Your task to perform on an android device: turn off translation in the chrome app Image 0: 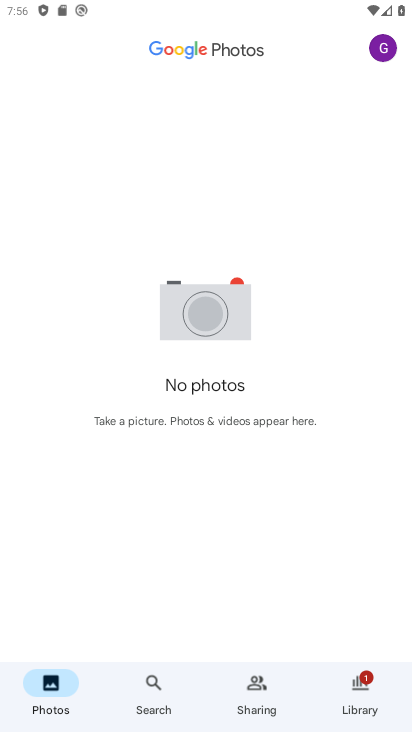
Step 0: press home button
Your task to perform on an android device: turn off translation in the chrome app Image 1: 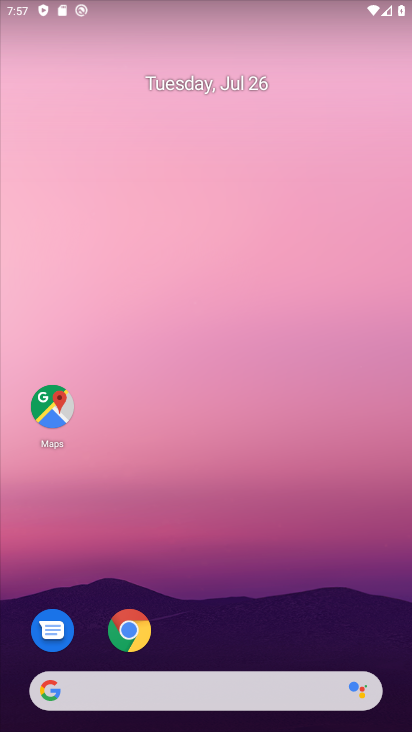
Step 1: click (137, 631)
Your task to perform on an android device: turn off translation in the chrome app Image 2: 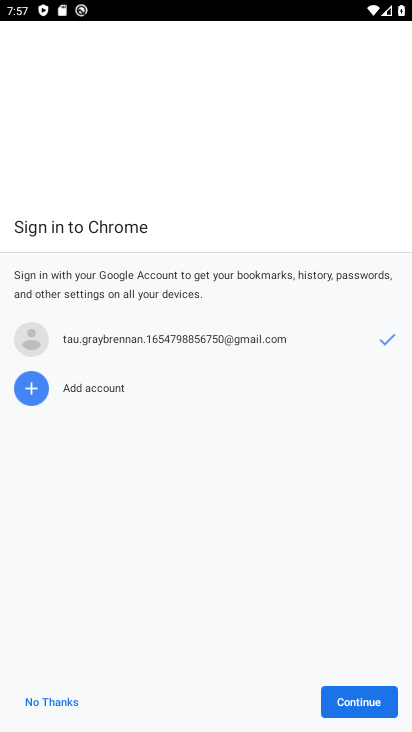
Step 2: click (342, 697)
Your task to perform on an android device: turn off translation in the chrome app Image 3: 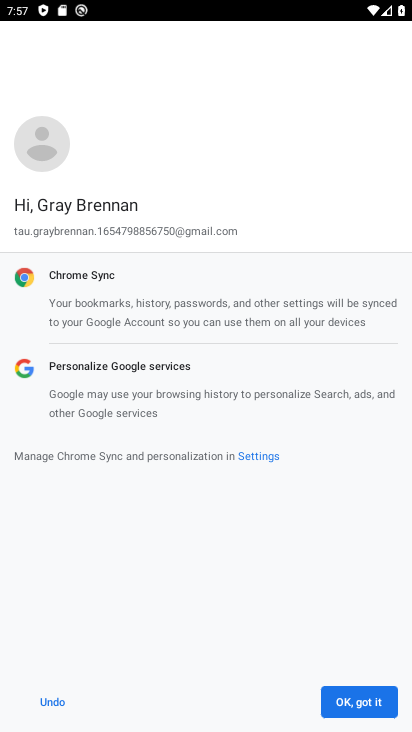
Step 3: click (342, 697)
Your task to perform on an android device: turn off translation in the chrome app Image 4: 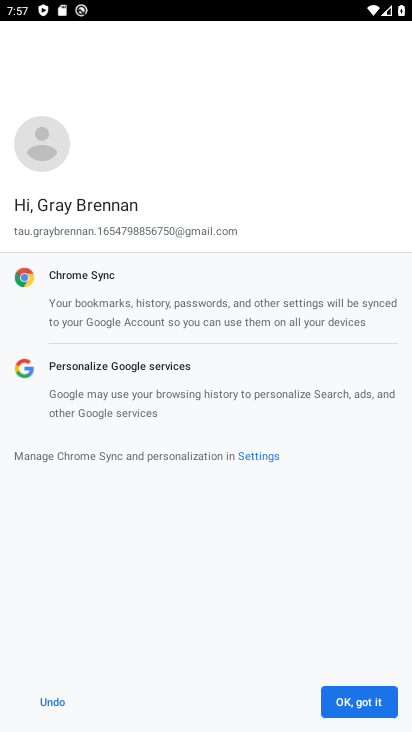
Step 4: click (342, 697)
Your task to perform on an android device: turn off translation in the chrome app Image 5: 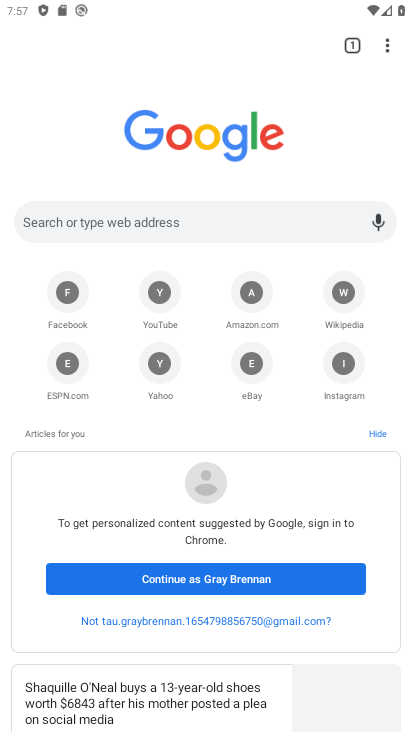
Step 5: click (386, 49)
Your task to perform on an android device: turn off translation in the chrome app Image 6: 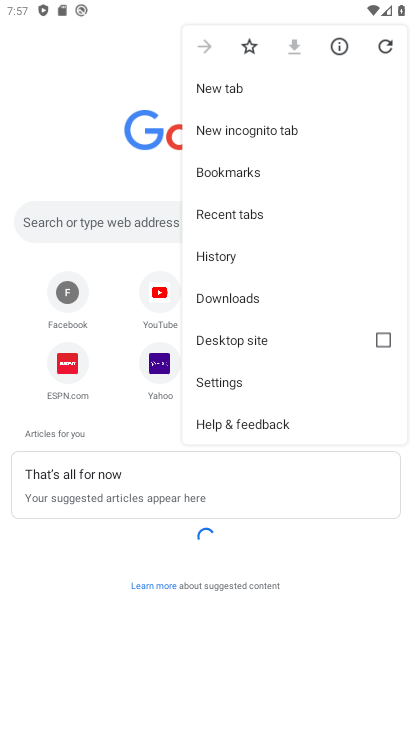
Step 6: click (261, 376)
Your task to perform on an android device: turn off translation in the chrome app Image 7: 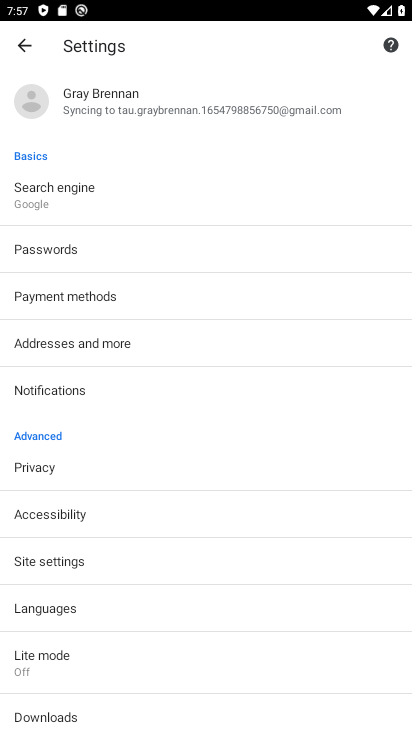
Step 7: click (109, 609)
Your task to perform on an android device: turn off translation in the chrome app Image 8: 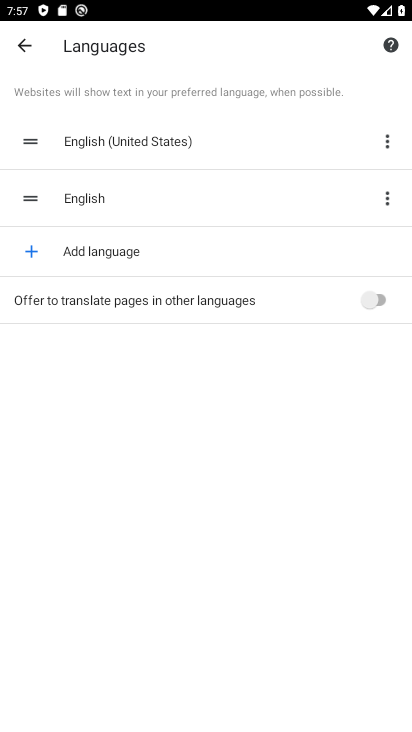
Step 8: click (379, 300)
Your task to perform on an android device: turn off translation in the chrome app Image 9: 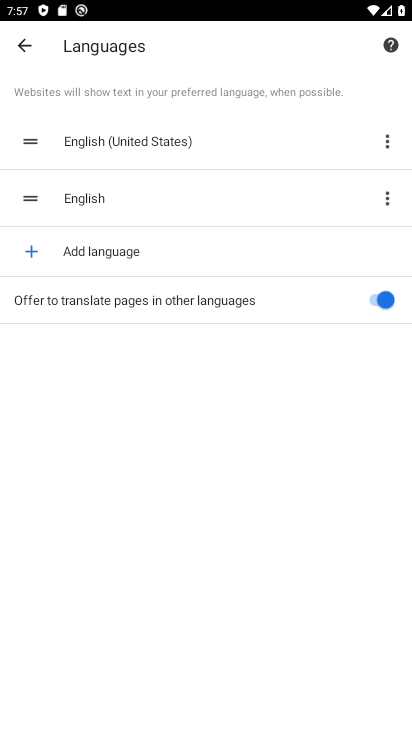
Step 9: task complete